Your task to perform on an android device: turn off location Image 0: 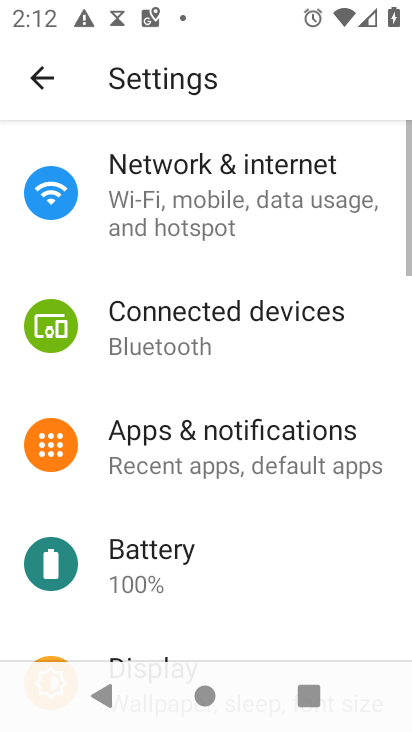
Step 0: press back button
Your task to perform on an android device: turn off location Image 1: 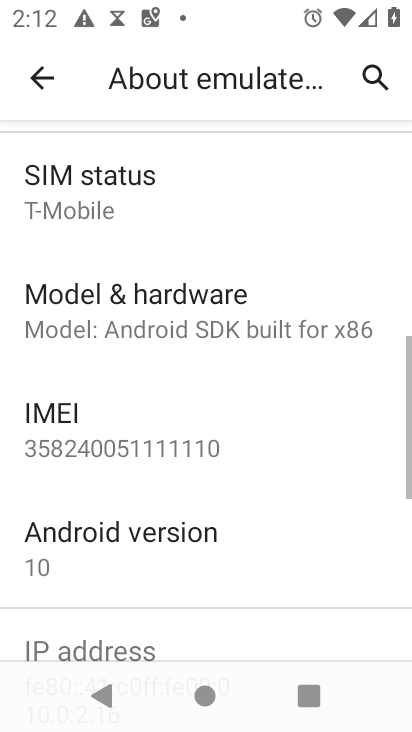
Step 1: press back button
Your task to perform on an android device: turn off location Image 2: 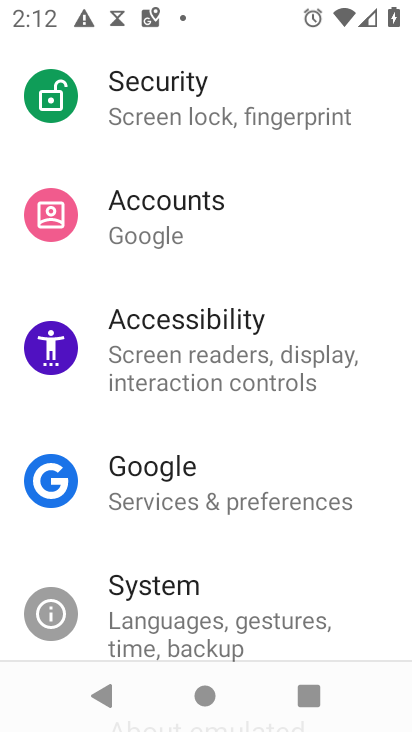
Step 2: press back button
Your task to perform on an android device: turn off location Image 3: 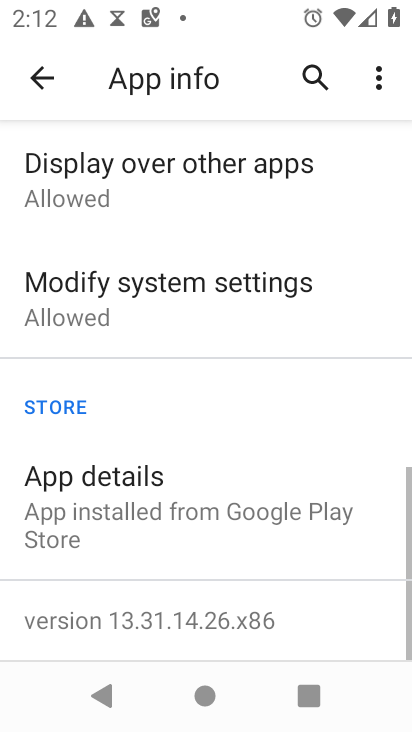
Step 3: press back button
Your task to perform on an android device: turn off location Image 4: 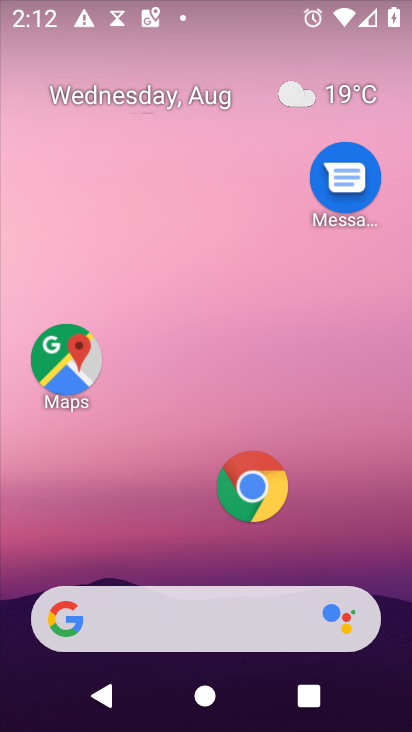
Step 4: drag from (153, 562) to (263, 8)
Your task to perform on an android device: turn off location Image 5: 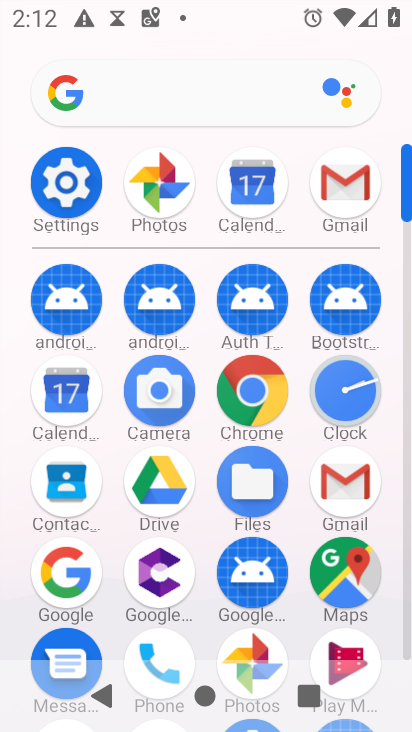
Step 5: click (55, 182)
Your task to perform on an android device: turn off location Image 6: 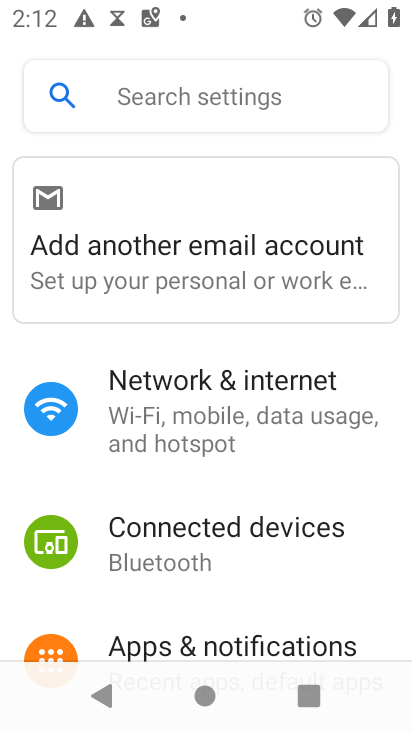
Step 6: drag from (213, 569) to (330, 40)
Your task to perform on an android device: turn off location Image 7: 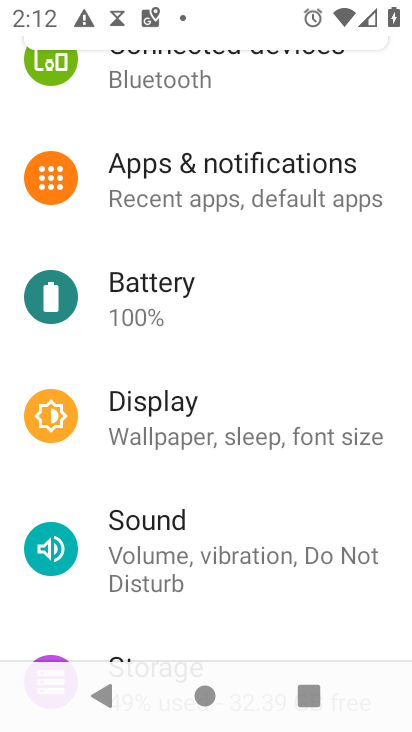
Step 7: drag from (189, 573) to (340, 80)
Your task to perform on an android device: turn off location Image 8: 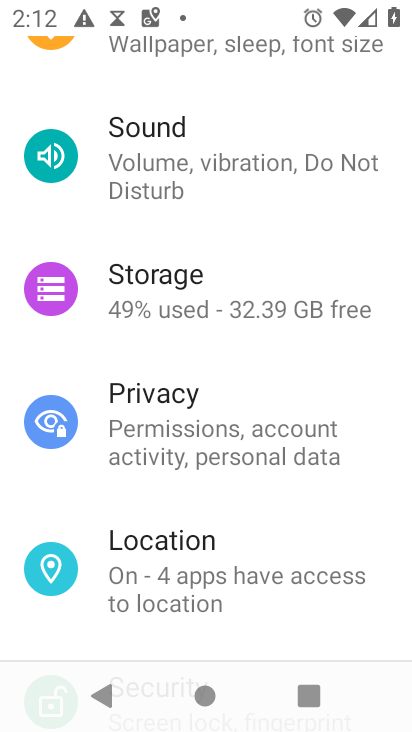
Step 8: click (145, 578)
Your task to perform on an android device: turn off location Image 9: 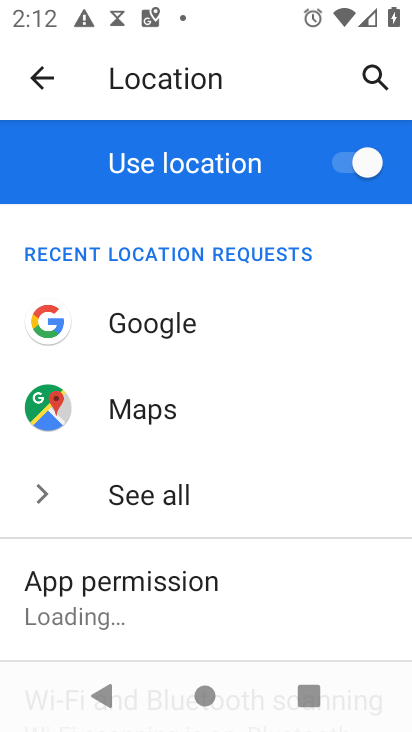
Step 9: click (351, 172)
Your task to perform on an android device: turn off location Image 10: 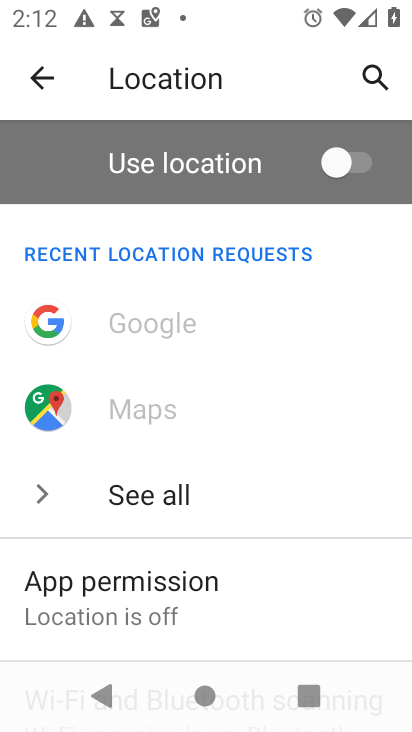
Step 10: task complete